Your task to perform on an android device: Open the web browser Image 0: 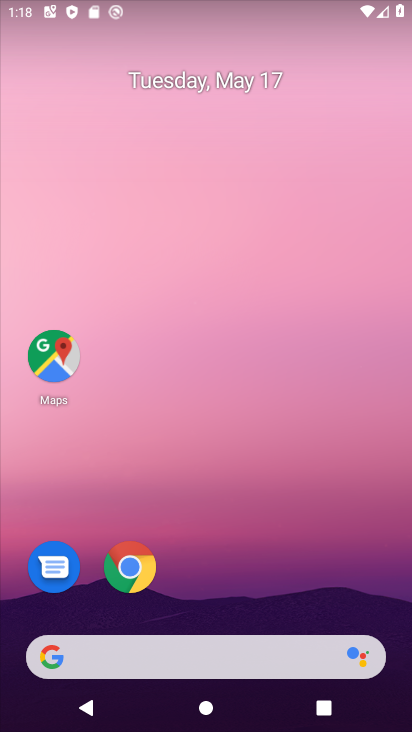
Step 0: click (131, 566)
Your task to perform on an android device: Open the web browser Image 1: 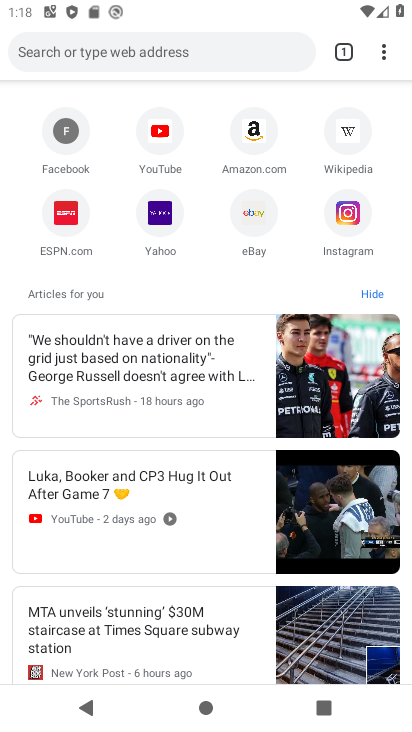
Step 1: task complete